Your task to perform on an android device: Open maps Image 0: 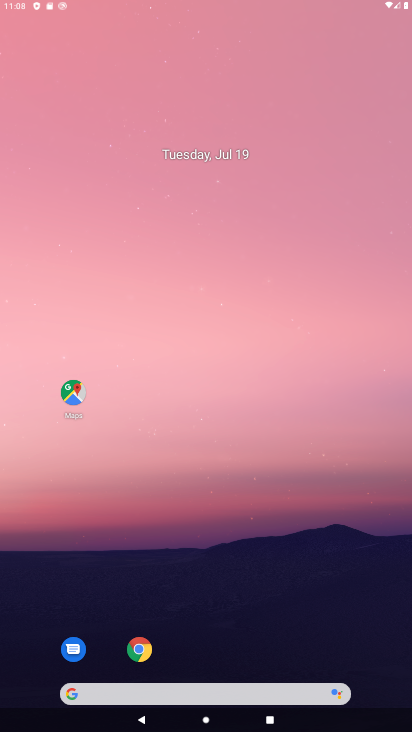
Step 0: press home button
Your task to perform on an android device: Open maps Image 1: 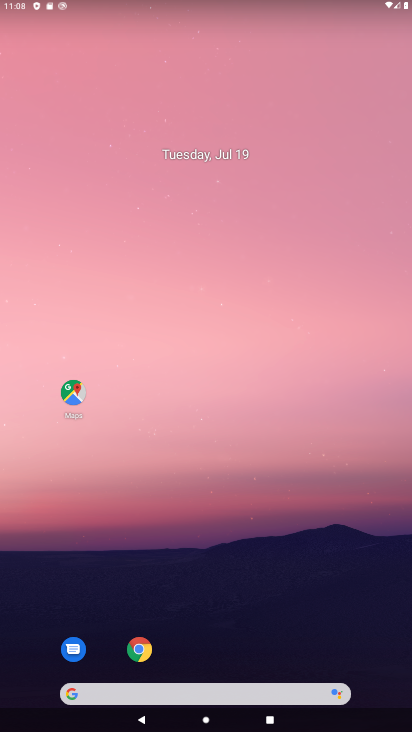
Step 1: drag from (301, 679) to (359, 38)
Your task to perform on an android device: Open maps Image 2: 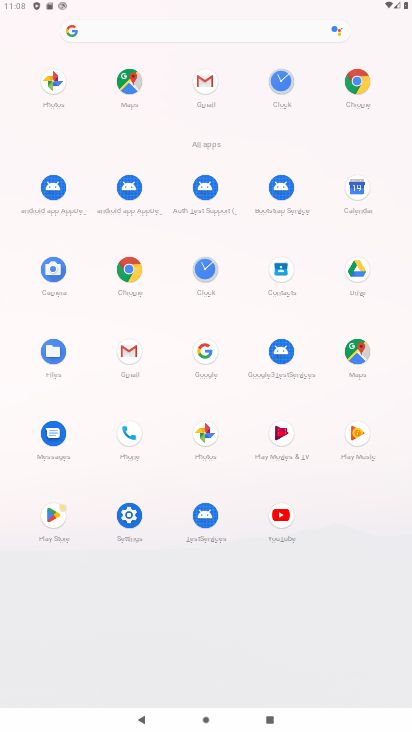
Step 2: click (135, 269)
Your task to perform on an android device: Open maps Image 3: 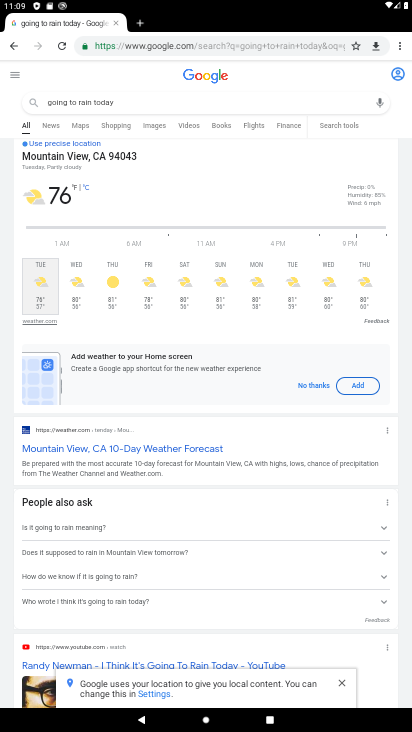
Step 3: press home button
Your task to perform on an android device: Open maps Image 4: 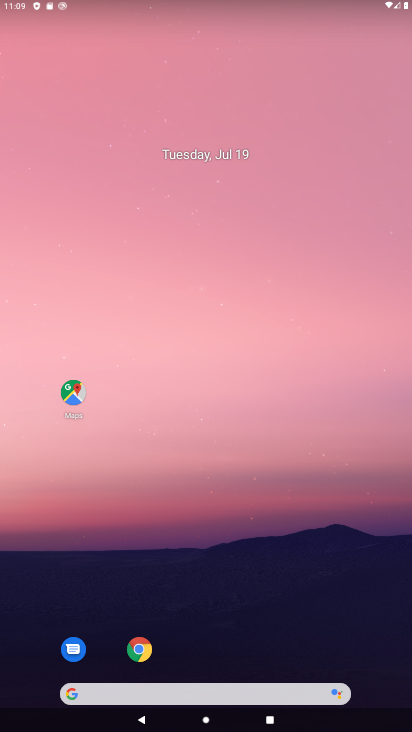
Step 4: drag from (283, 710) to (344, 161)
Your task to perform on an android device: Open maps Image 5: 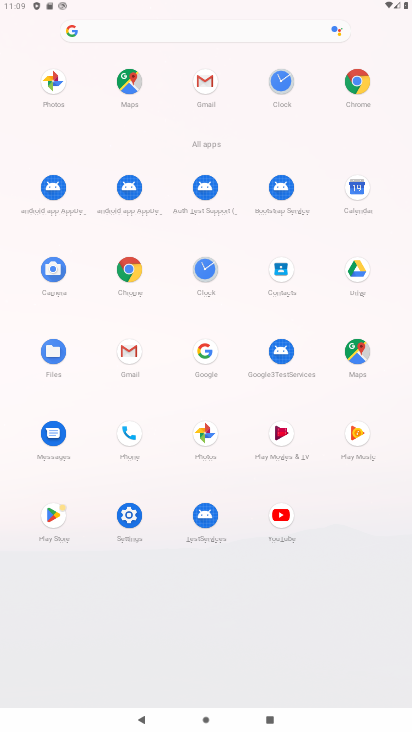
Step 5: click (371, 344)
Your task to perform on an android device: Open maps Image 6: 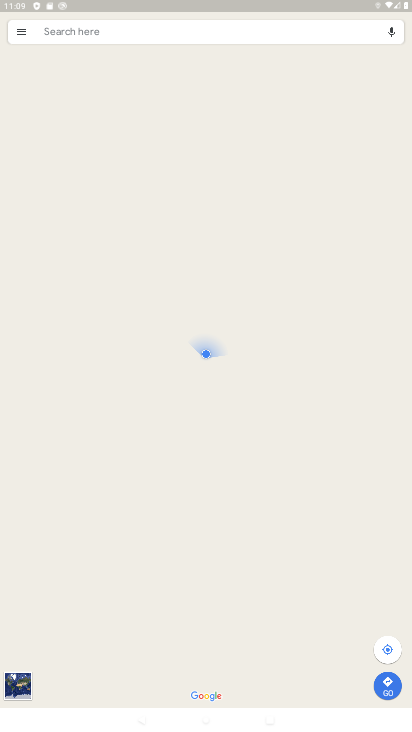
Step 6: task complete